Your task to perform on an android device: Open Yahoo.com Image 0: 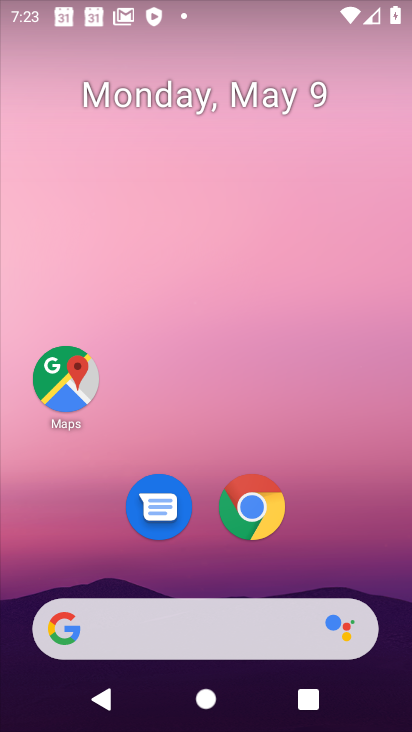
Step 0: drag from (282, 659) to (303, 181)
Your task to perform on an android device: Open Yahoo.com Image 1: 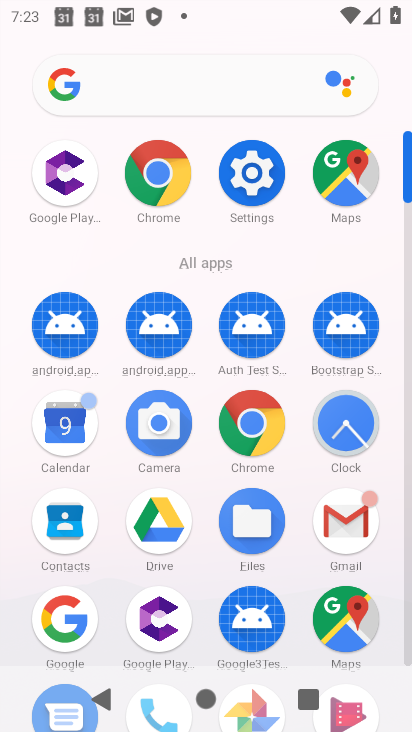
Step 1: click (151, 194)
Your task to perform on an android device: Open Yahoo.com Image 2: 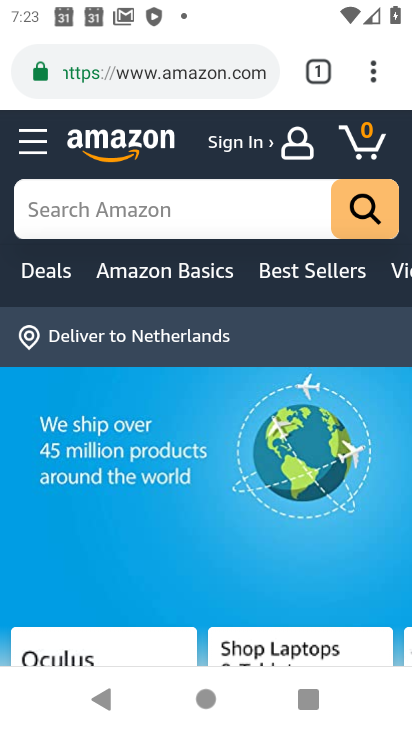
Step 2: click (307, 65)
Your task to perform on an android device: Open Yahoo.com Image 3: 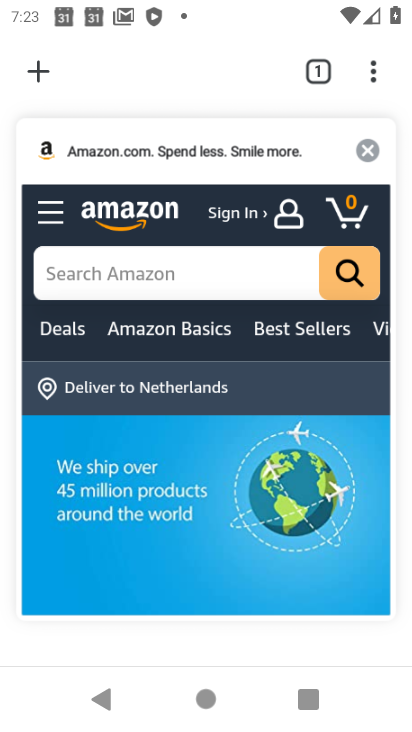
Step 3: click (37, 76)
Your task to perform on an android device: Open Yahoo.com Image 4: 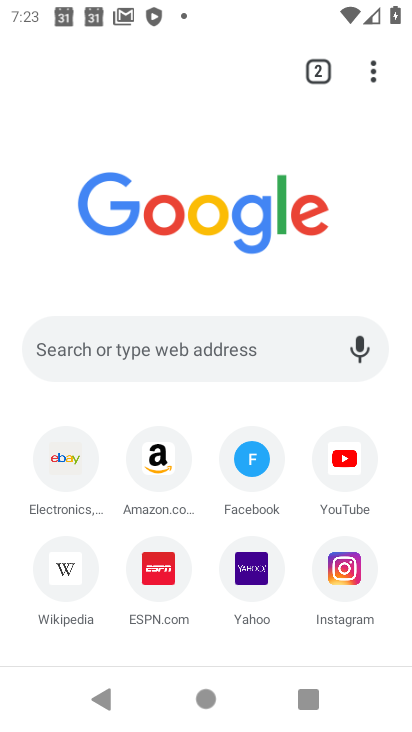
Step 4: click (252, 586)
Your task to perform on an android device: Open Yahoo.com Image 5: 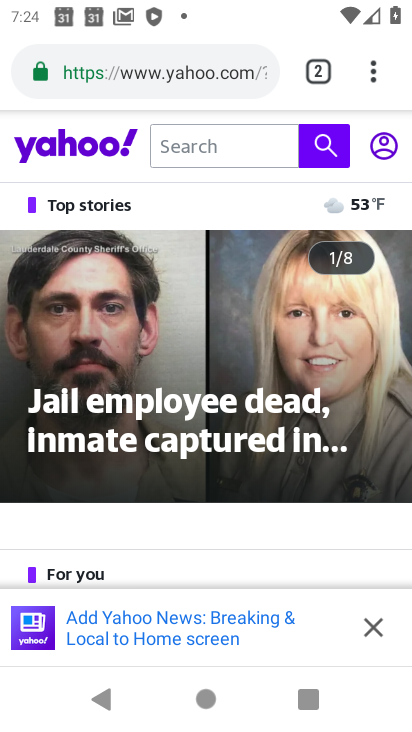
Step 5: click (378, 628)
Your task to perform on an android device: Open Yahoo.com Image 6: 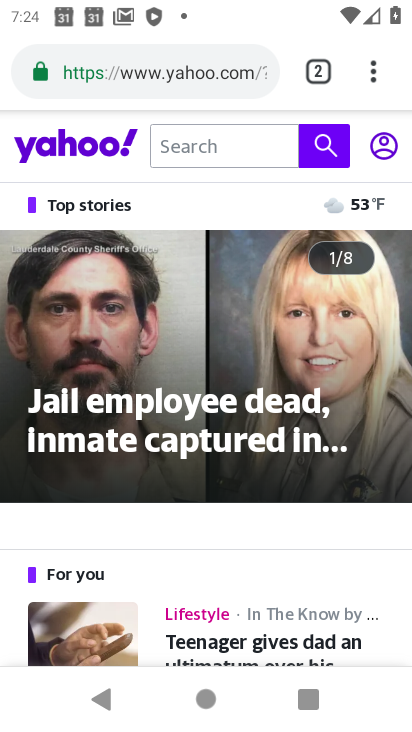
Step 6: task complete